Your task to perform on an android device: Go to Wikipedia Image 0: 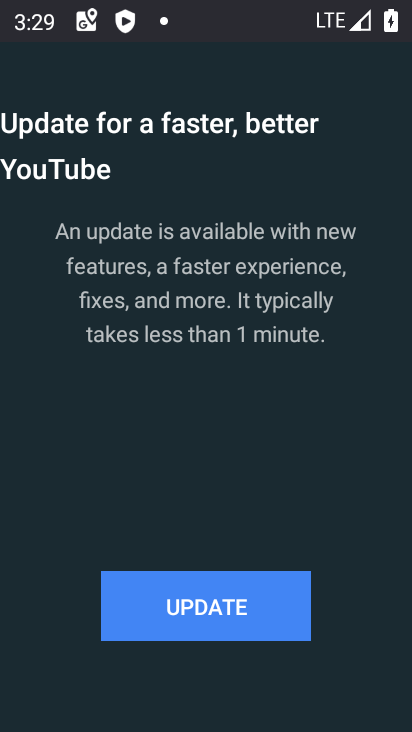
Step 0: press home button
Your task to perform on an android device: Go to Wikipedia Image 1: 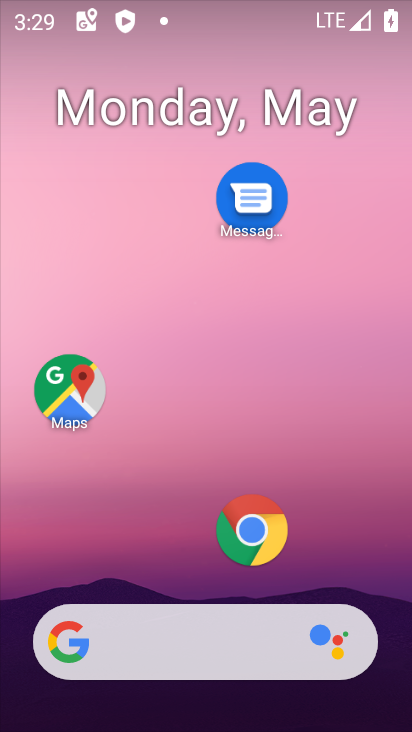
Step 1: click (248, 549)
Your task to perform on an android device: Go to Wikipedia Image 2: 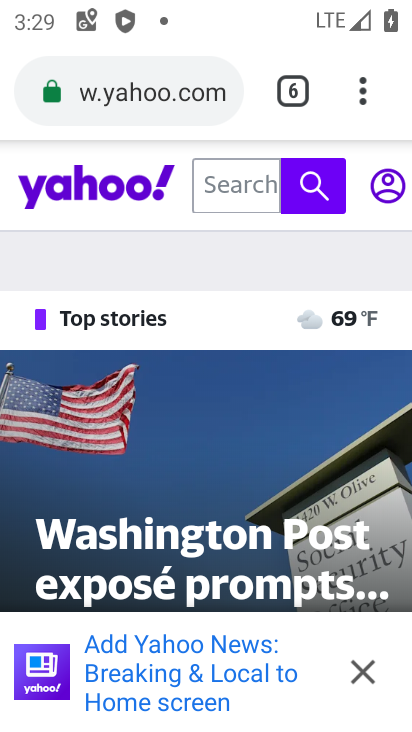
Step 2: click (281, 87)
Your task to perform on an android device: Go to Wikipedia Image 3: 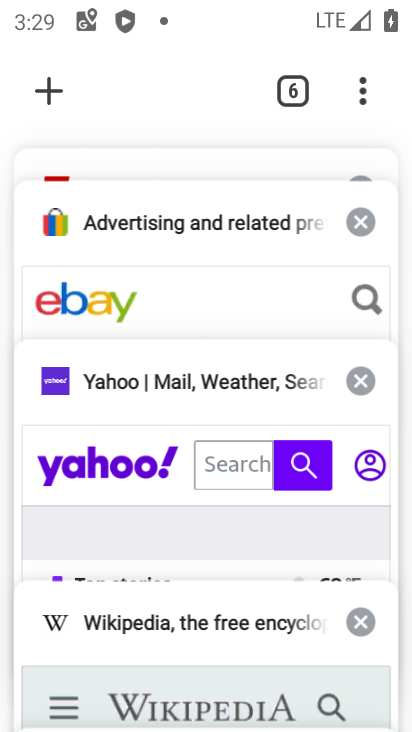
Step 3: click (42, 93)
Your task to perform on an android device: Go to Wikipedia Image 4: 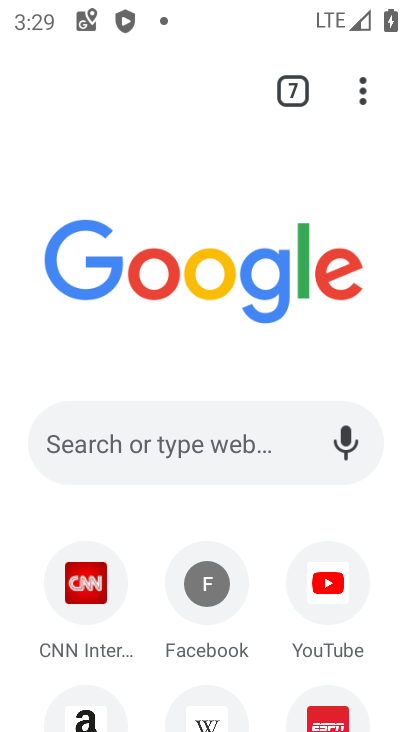
Step 4: click (206, 711)
Your task to perform on an android device: Go to Wikipedia Image 5: 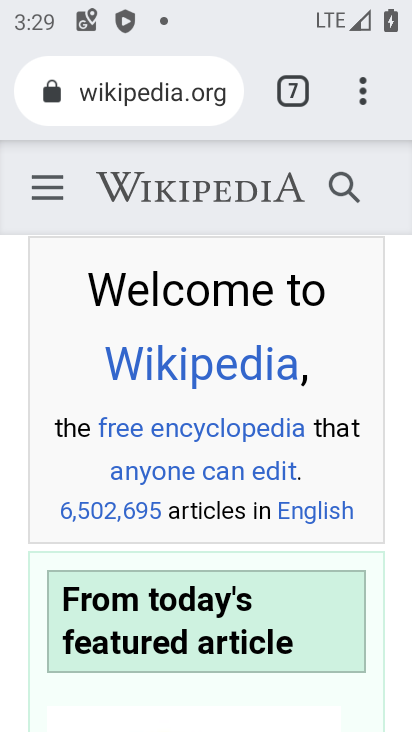
Step 5: task complete